Your task to perform on an android device: Open Chrome and go to the settings page Image 0: 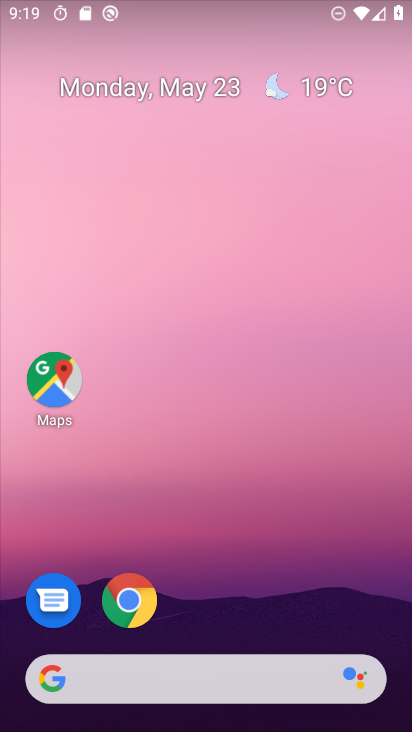
Step 0: press home button
Your task to perform on an android device: Open Chrome and go to the settings page Image 1: 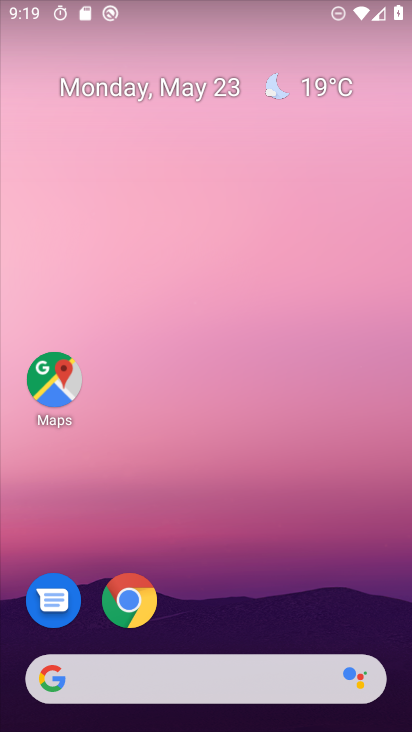
Step 1: click (137, 591)
Your task to perform on an android device: Open Chrome and go to the settings page Image 2: 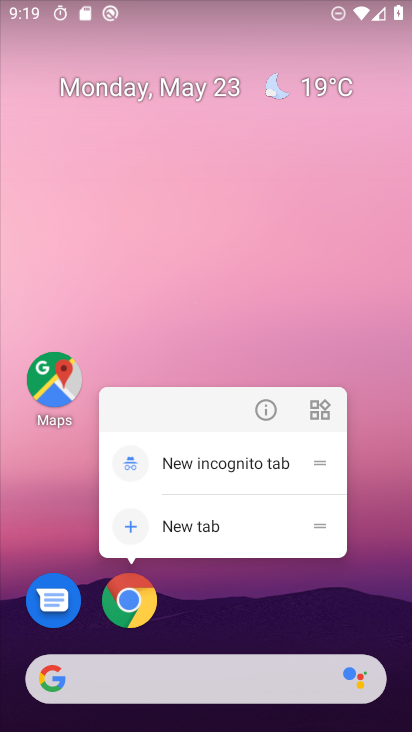
Step 2: click (136, 594)
Your task to perform on an android device: Open Chrome and go to the settings page Image 3: 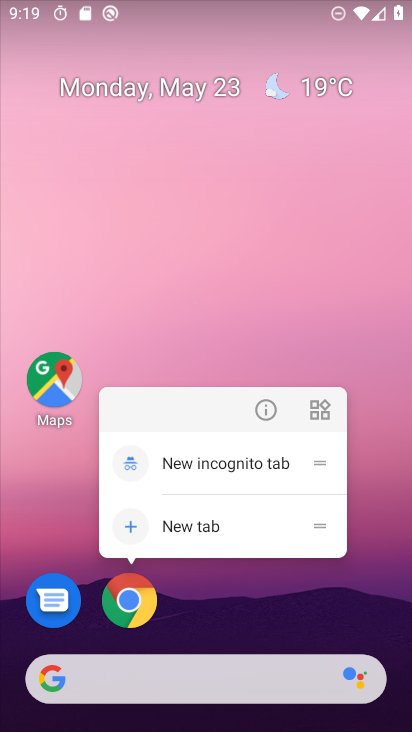
Step 3: click (120, 598)
Your task to perform on an android device: Open Chrome and go to the settings page Image 4: 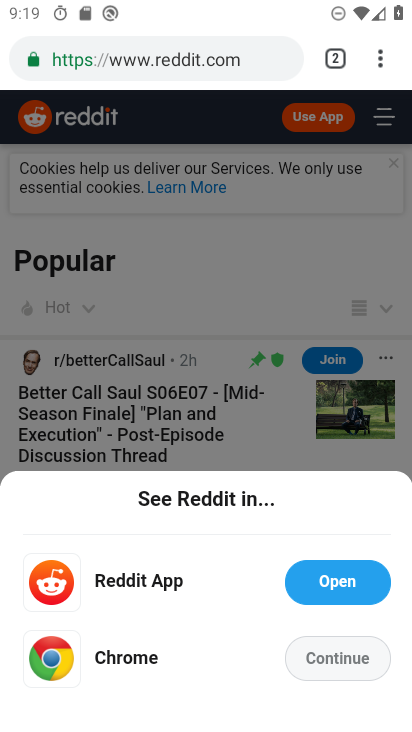
Step 4: task complete